Your task to perform on an android device: clear history in the chrome app Image 0: 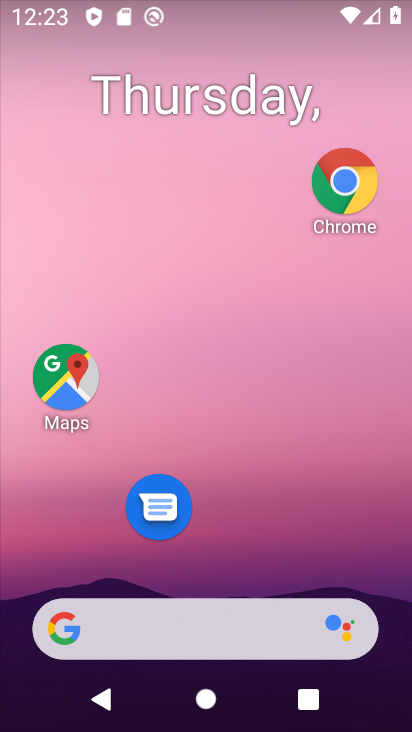
Step 0: drag from (270, 622) to (208, 198)
Your task to perform on an android device: clear history in the chrome app Image 1: 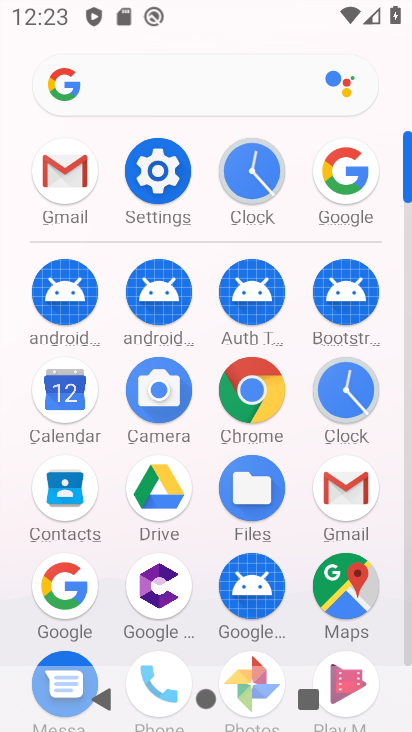
Step 1: click (267, 425)
Your task to perform on an android device: clear history in the chrome app Image 2: 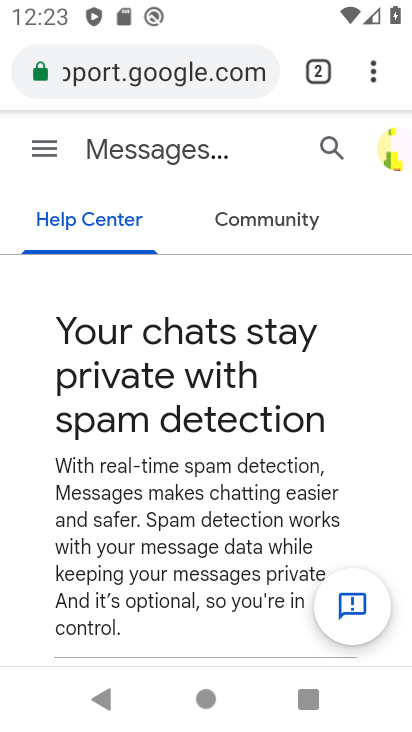
Step 2: click (375, 88)
Your task to perform on an android device: clear history in the chrome app Image 3: 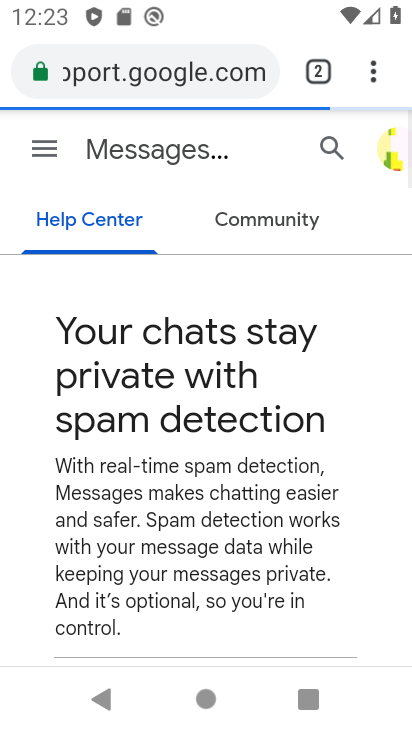
Step 3: click (375, 88)
Your task to perform on an android device: clear history in the chrome app Image 4: 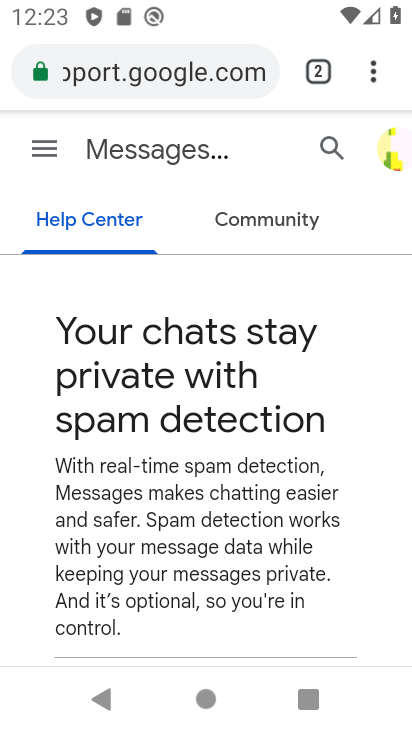
Step 4: click (367, 87)
Your task to perform on an android device: clear history in the chrome app Image 5: 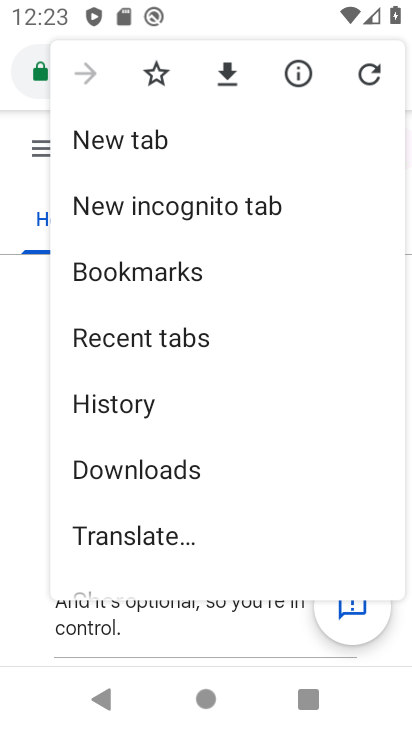
Step 5: drag from (277, 517) to (335, 341)
Your task to perform on an android device: clear history in the chrome app Image 6: 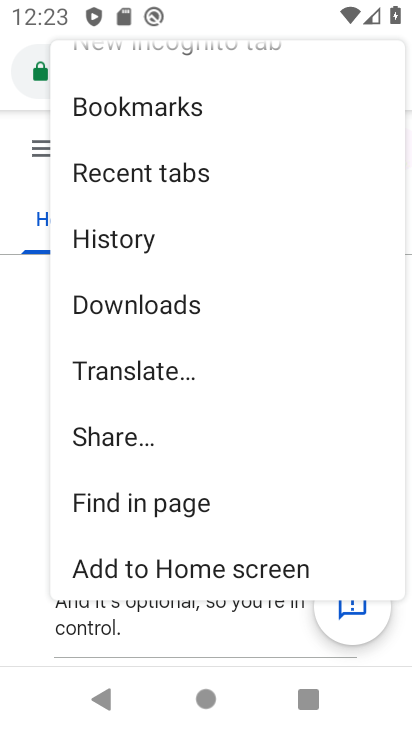
Step 6: click (126, 226)
Your task to perform on an android device: clear history in the chrome app Image 7: 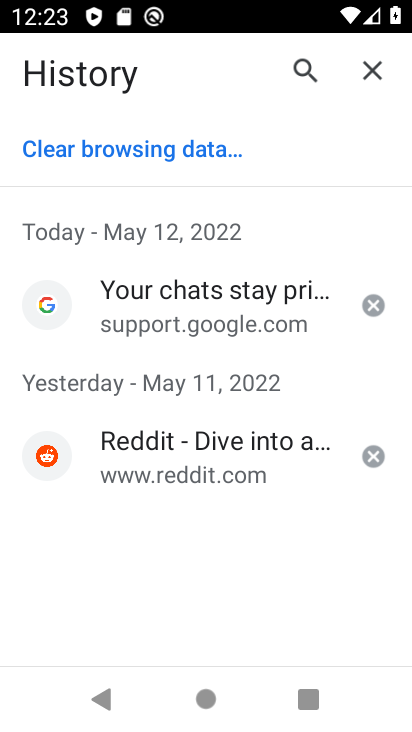
Step 7: click (121, 153)
Your task to perform on an android device: clear history in the chrome app Image 8: 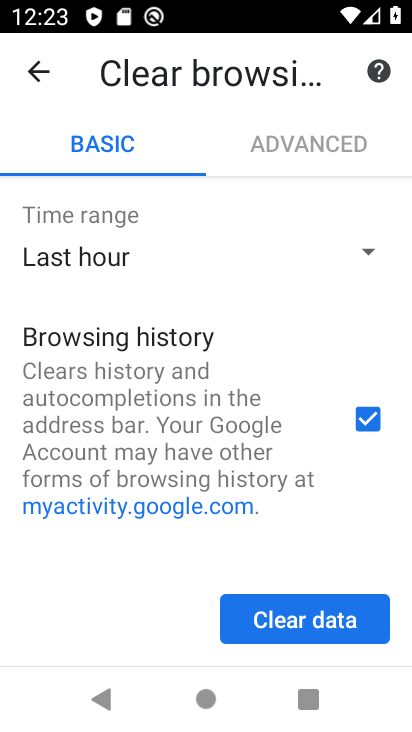
Step 8: click (243, 602)
Your task to perform on an android device: clear history in the chrome app Image 9: 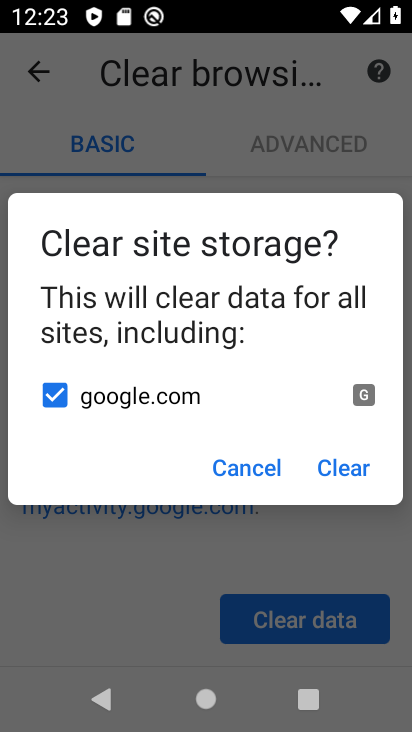
Step 9: click (345, 450)
Your task to perform on an android device: clear history in the chrome app Image 10: 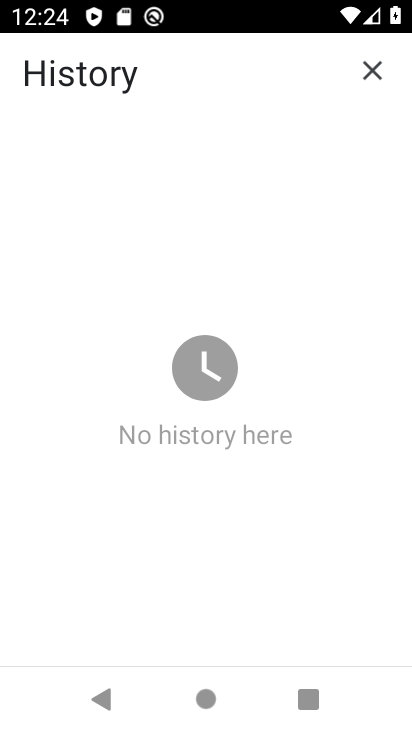
Step 10: task complete